Your task to perform on an android device: Turn off the flashlight Image 0: 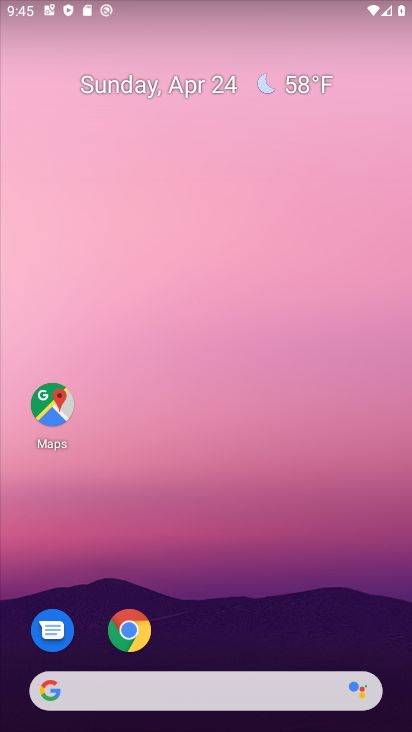
Step 0: drag from (223, 625) to (236, 321)
Your task to perform on an android device: Turn off the flashlight Image 1: 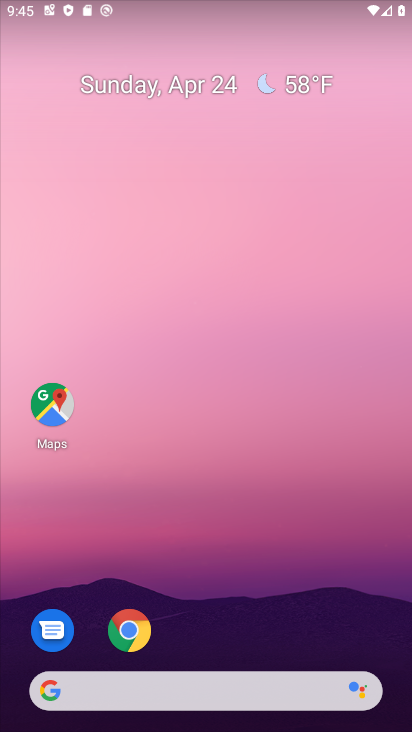
Step 1: task complete